Your task to perform on an android device: search for starred emails in the gmail app Image 0: 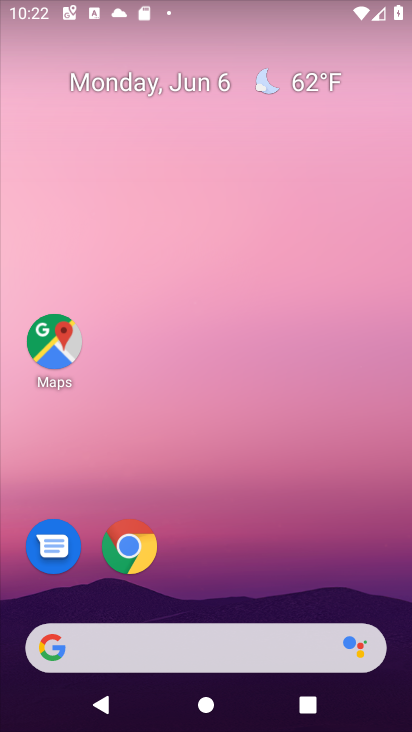
Step 0: drag from (374, 606) to (320, 107)
Your task to perform on an android device: search for starred emails in the gmail app Image 1: 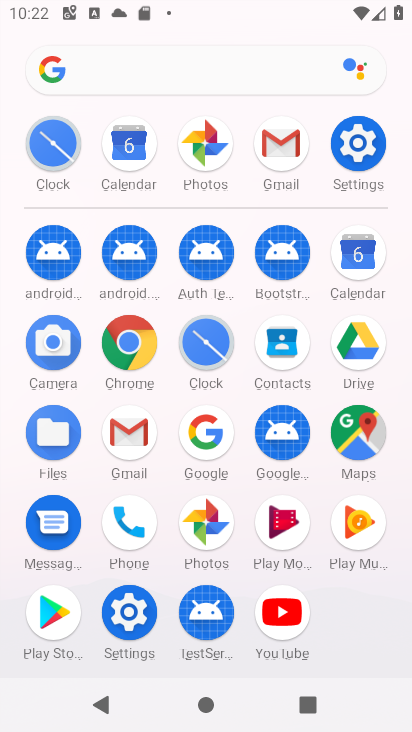
Step 1: click (130, 436)
Your task to perform on an android device: search for starred emails in the gmail app Image 2: 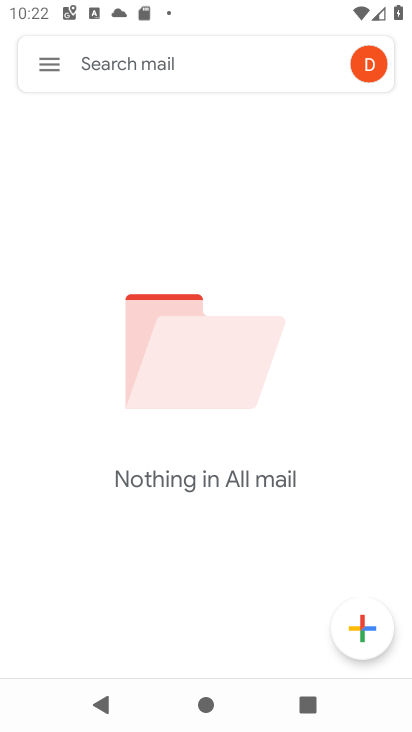
Step 2: click (45, 66)
Your task to perform on an android device: search for starred emails in the gmail app Image 3: 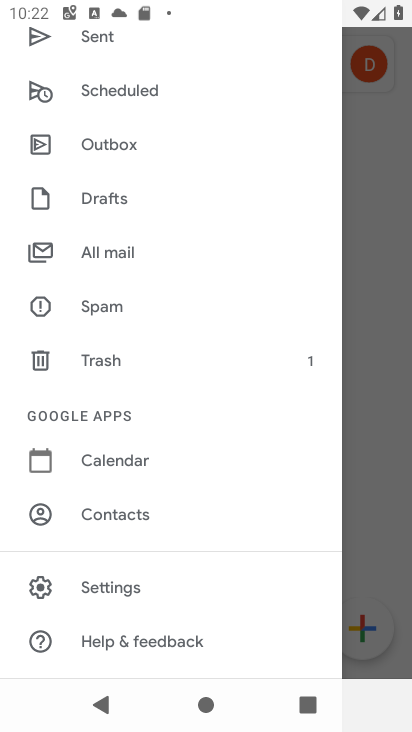
Step 3: drag from (232, 260) to (230, 413)
Your task to perform on an android device: search for starred emails in the gmail app Image 4: 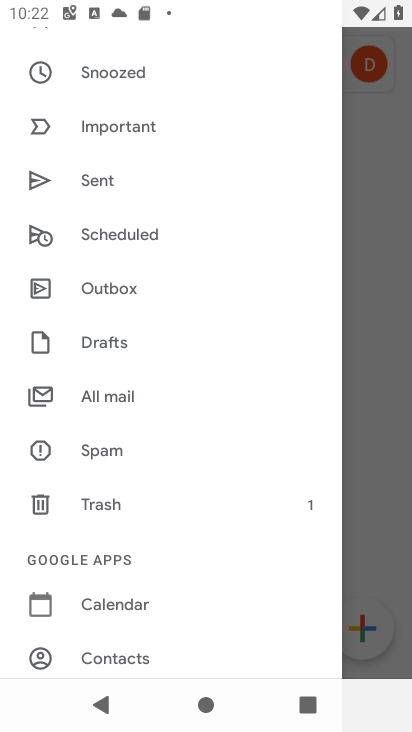
Step 4: drag from (178, 142) to (181, 254)
Your task to perform on an android device: search for starred emails in the gmail app Image 5: 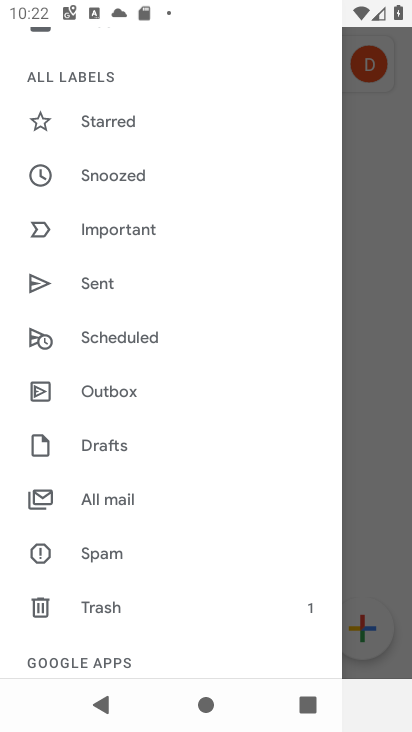
Step 5: click (101, 116)
Your task to perform on an android device: search for starred emails in the gmail app Image 6: 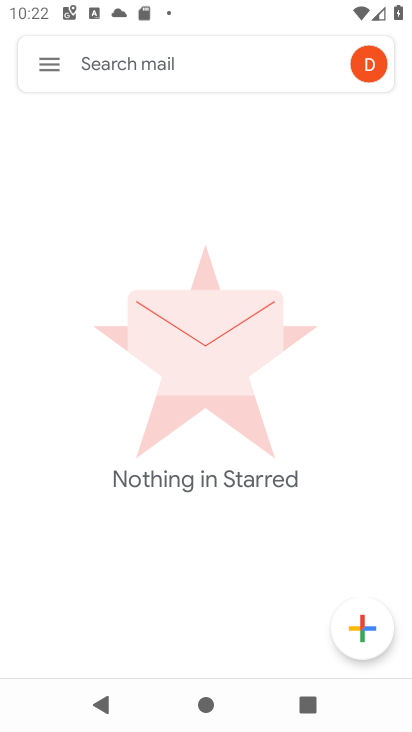
Step 6: task complete